Your task to perform on an android device: Show me popular videos on Youtube Image 0: 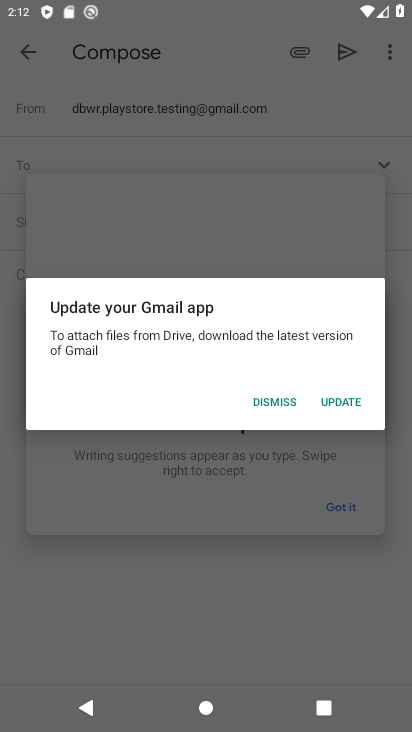
Step 0: press back button
Your task to perform on an android device: Show me popular videos on Youtube Image 1: 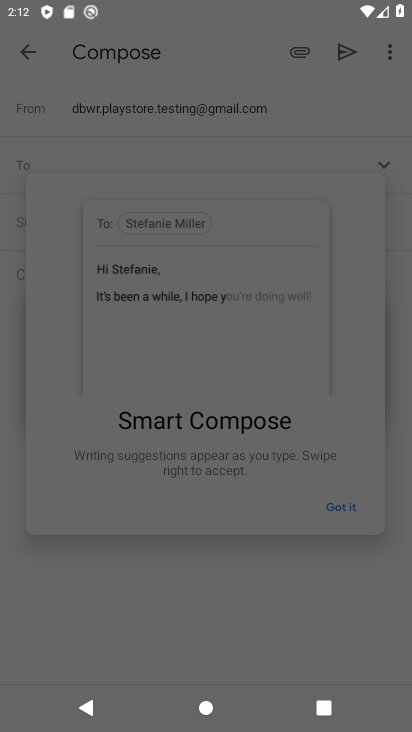
Step 1: press home button
Your task to perform on an android device: Show me popular videos on Youtube Image 2: 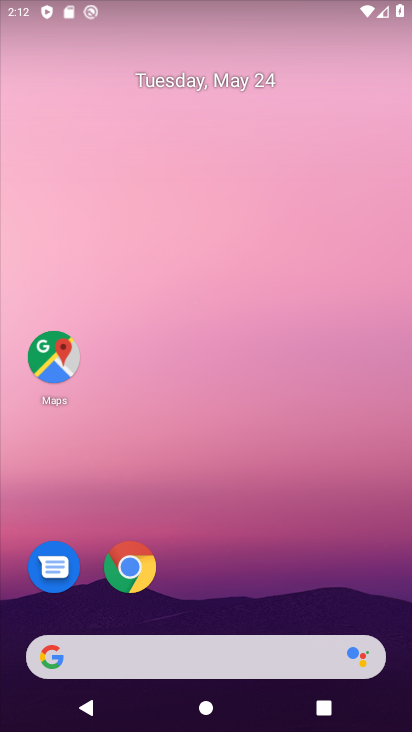
Step 2: drag from (243, 495) to (334, 26)
Your task to perform on an android device: Show me popular videos on Youtube Image 3: 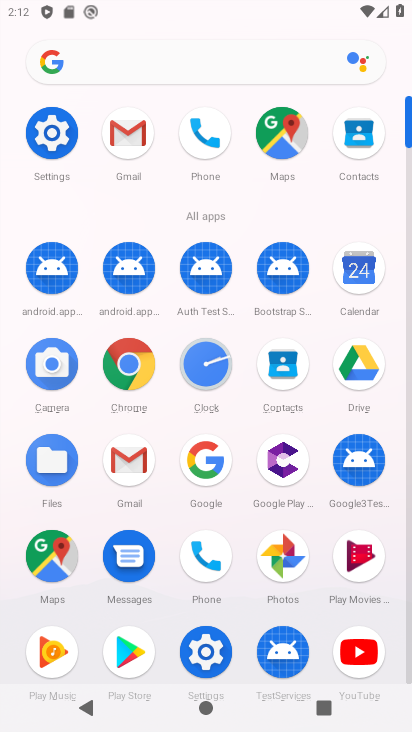
Step 3: drag from (241, 555) to (315, 37)
Your task to perform on an android device: Show me popular videos on Youtube Image 4: 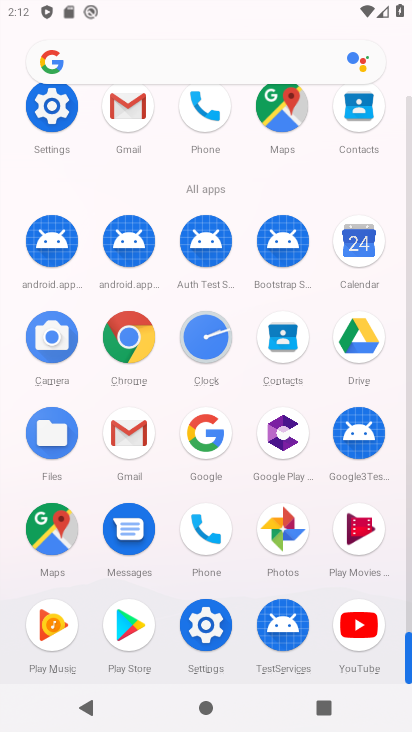
Step 4: click (351, 610)
Your task to perform on an android device: Show me popular videos on Youtube Image 5: 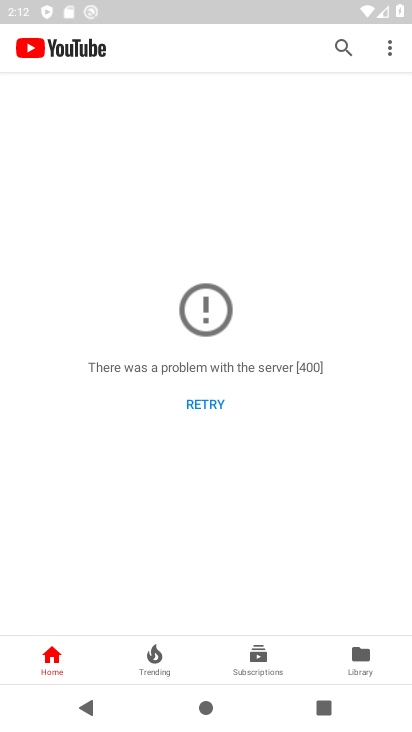
Step 5: task complete